Your task to perform on an android device: Go to Google Image 0: 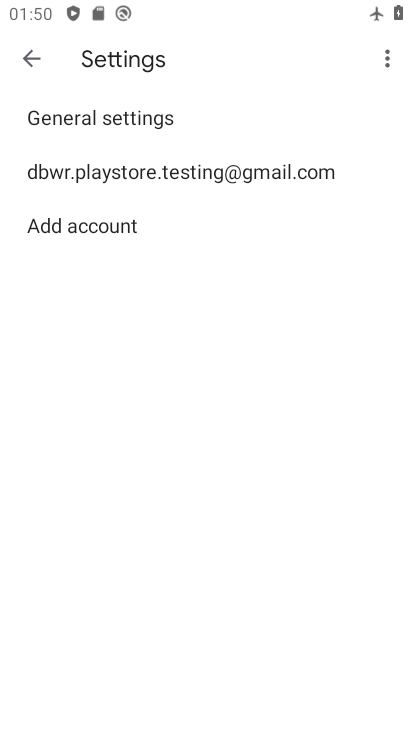
Step 0: press home button
Your task to perform on an android device: Go to Google Image 1: 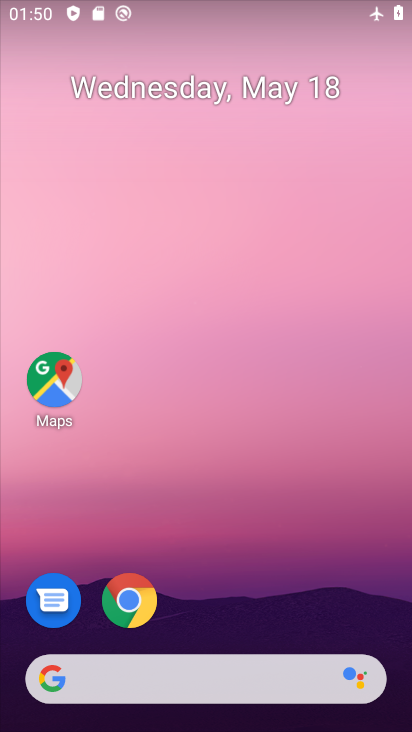
Step 1: drag from (183, 653) to (217, 310)
Your task to perform on an android device: Go to Google Image 2: 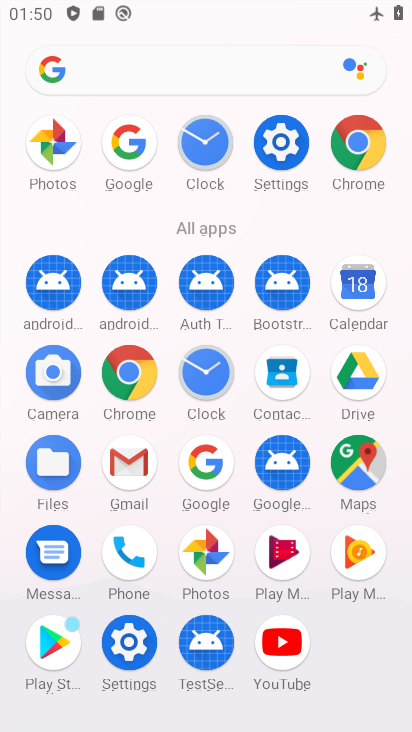
Step 2: click (206, 475)
Your task to perform on an android device: Go to Google Image 3: 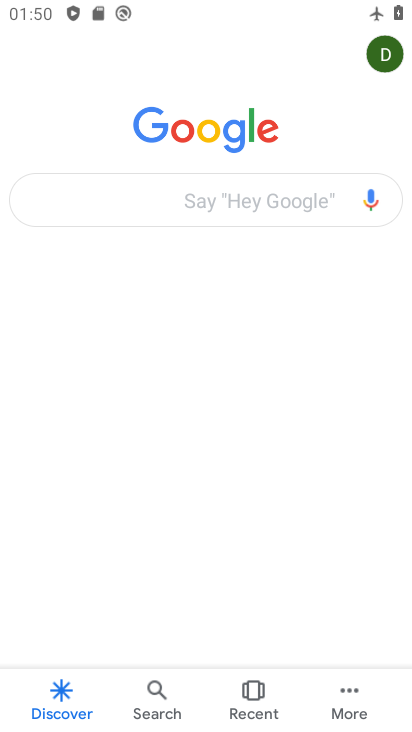
Step 3: task complete